Your task to perform on an android device: Open calendar and show me the third week of next month Image 0: 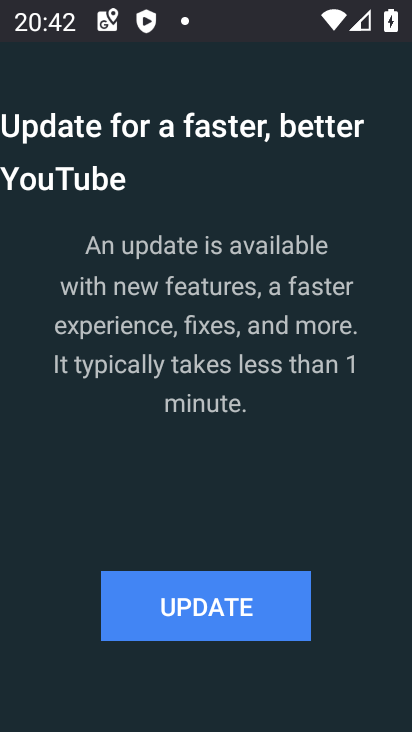
Step 0: press home button
Your task to perform on an android device: Open calendar and show me the third week of next month Image 1: 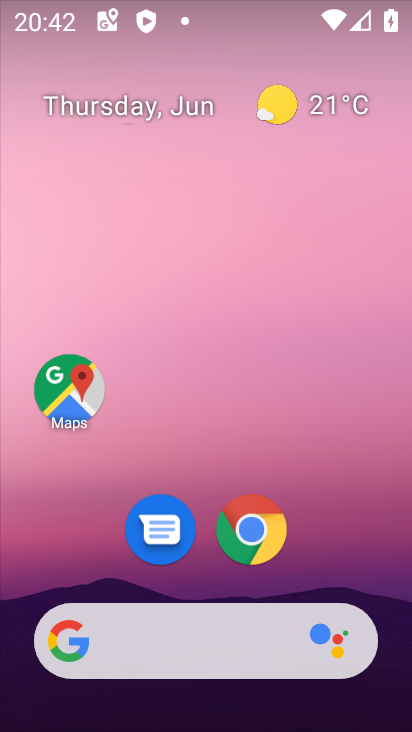
Step 1: drag from (342, 536) to (215, 84)
Your task to perform on an android device: Open calendar and show me the third week of next month Image 2: 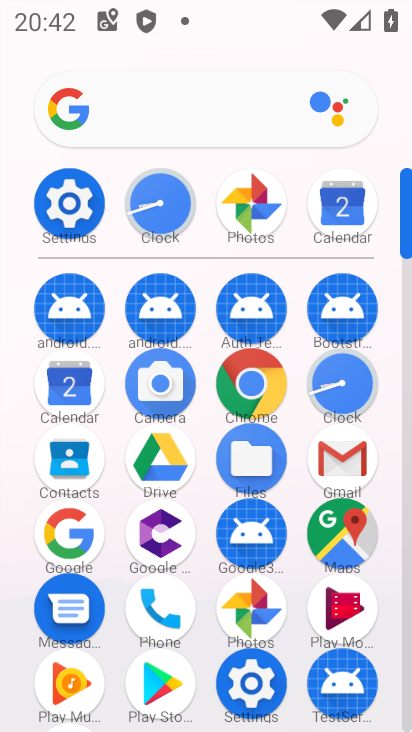
Step 2: click (68, 390)
Your task to perform on an android device: Open calendar and show me the third week of next month Image 3: 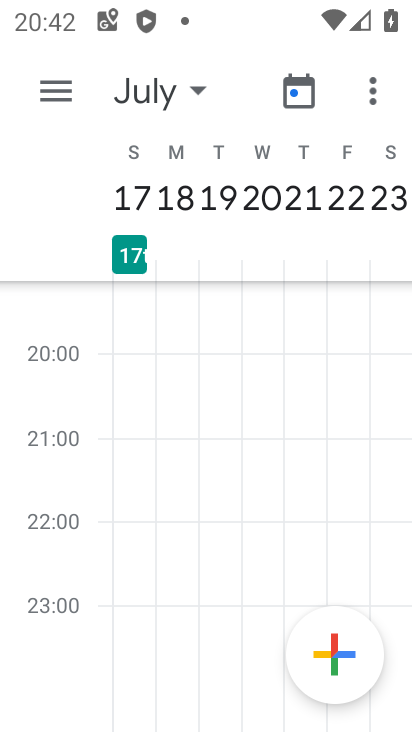
Step 3: click (198, 90)
Your task to perform on an android device: Open calendar and show me the third week of next month Image 4: 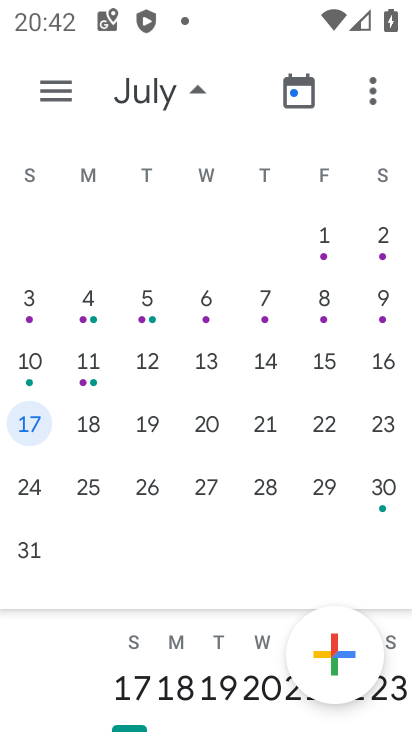
Step 4: click (148, 360)
Your task to perform on an android device: Open calendar and show me the third week of next month Image 5: 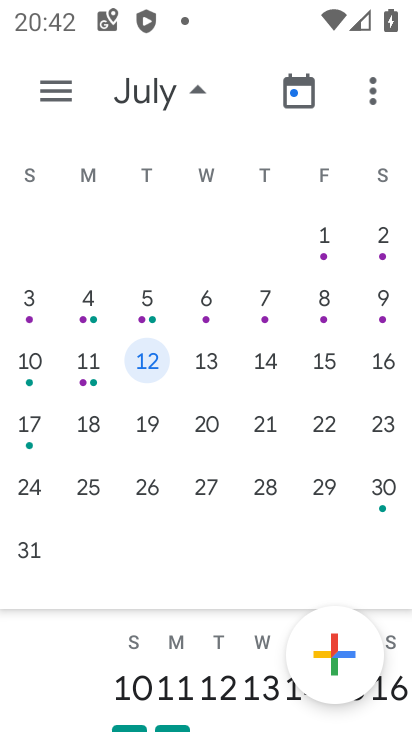
Step 5: task complete